Your task to perform on an android device: manage bookmarks in the chrome app Image 0: 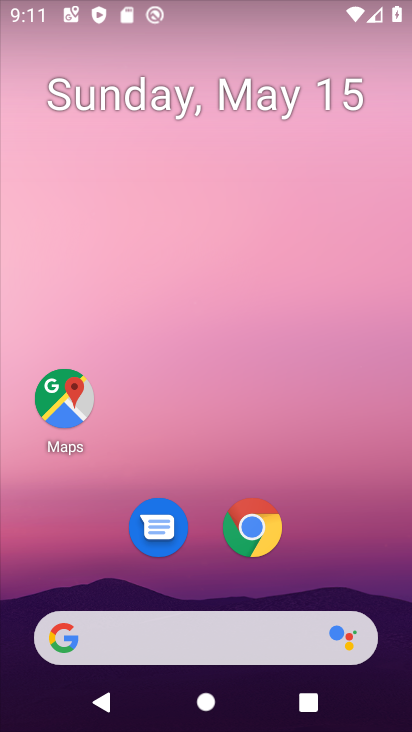
Step 0: click (265, 513)
Your task to perform on an android device: manage bookmarks in the chrome app Image 1: 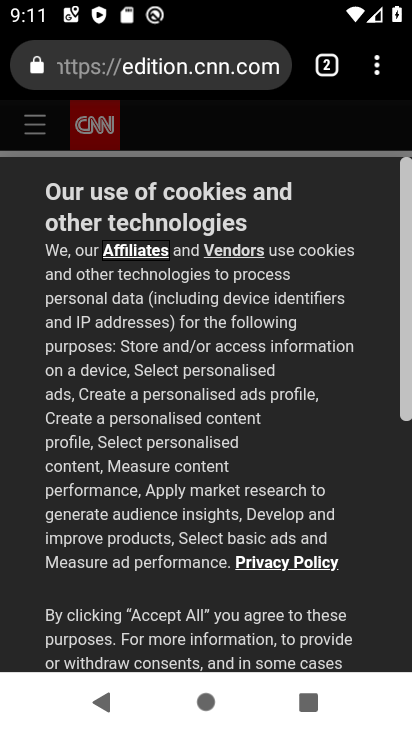
Step 1: drag from (378, 70) to (305, 262)
Your task to perform on an android device: manage bookmarks in the chrome app Image 2: 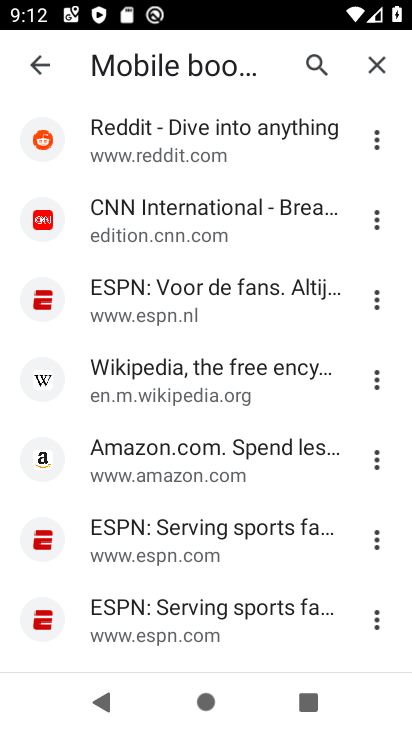
Step 2: click (285, 157)
Your task to perform on an android device: manage bookmarks in the chrome app Image 3: 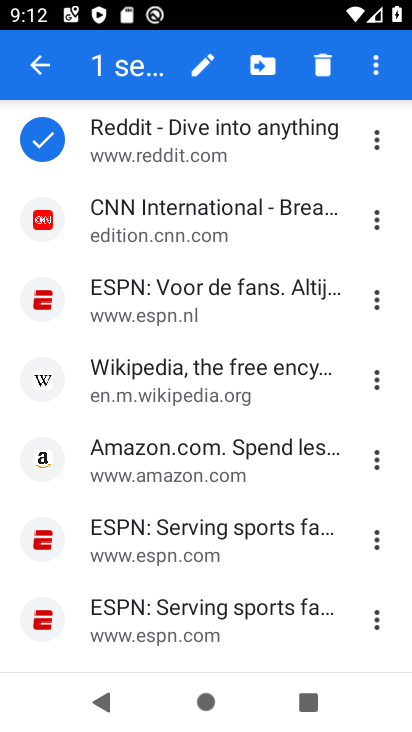
Step 3: click (264, 65)
Your task to perform on an android device: manage bookmarks in the chrome app Image 4: 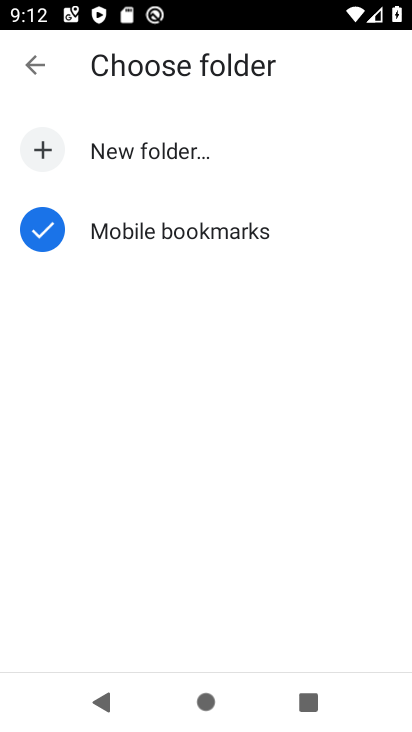
Step 4: click (192, 225)
Your task to perform on an android device: manage bookmarks in the chrome app Image 5: 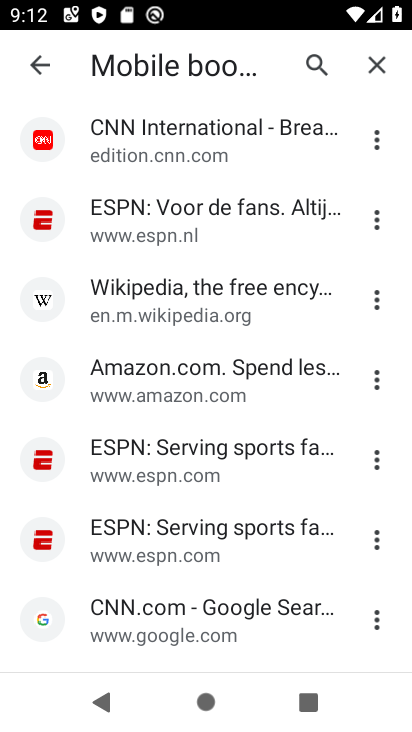
Step 5: task complete